Your task to perform on an android device: toggle wifi Image 0: 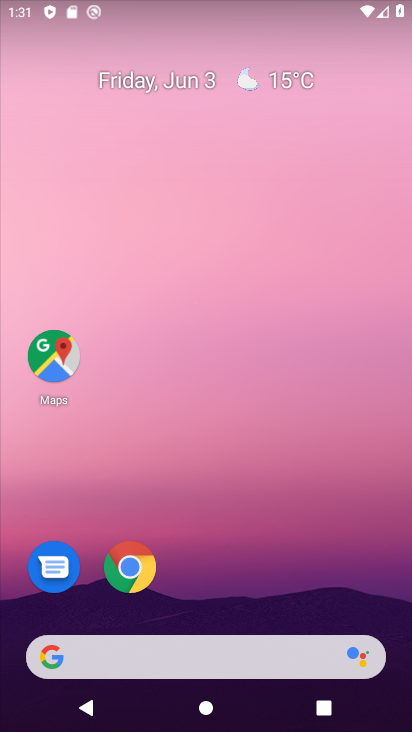
Step 0: drag from (207, 636) to (259, 74)
Your task to perform on an android device: toggle wifi Image 1: 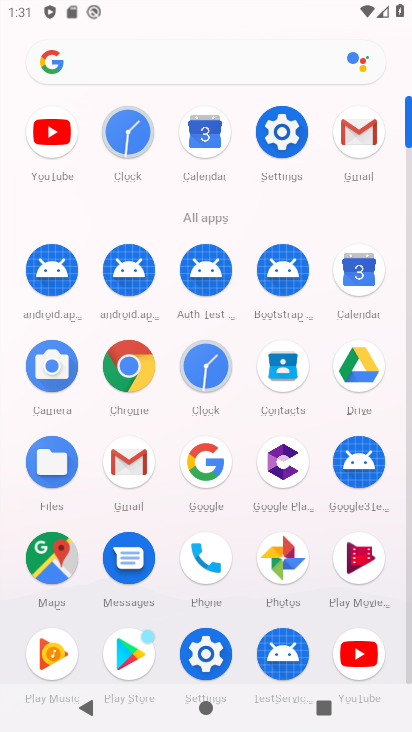
Step 1: click (286, 135)
Your task to perform on an android device: toggle wifi Image 2: 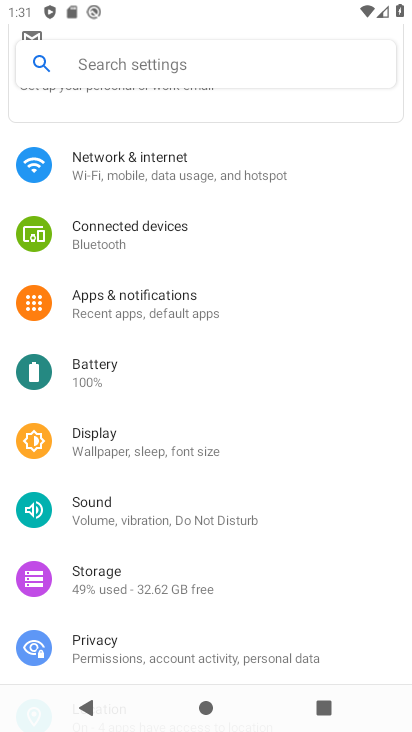
Step 2: click (178, 168)
Your task to perform on an android device: toggle wifi Image 3: 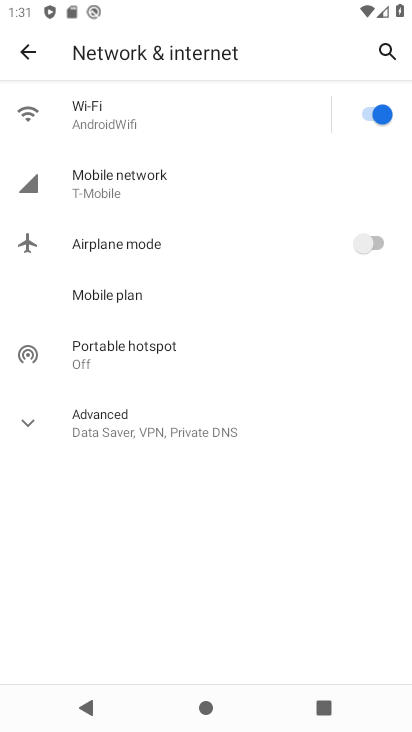
Step 3: click (369, 110)
Your task to perform on an android device: toggle wifi Image 4: 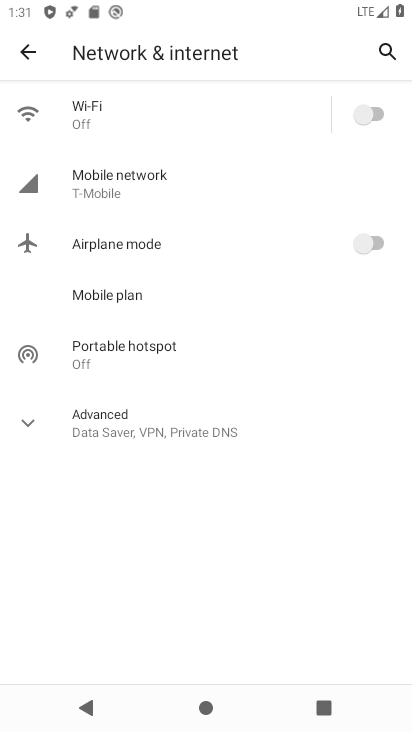
Step 4: task complete